Your task to perform on an android device: toggle show notifications on the lock screen Image 0: 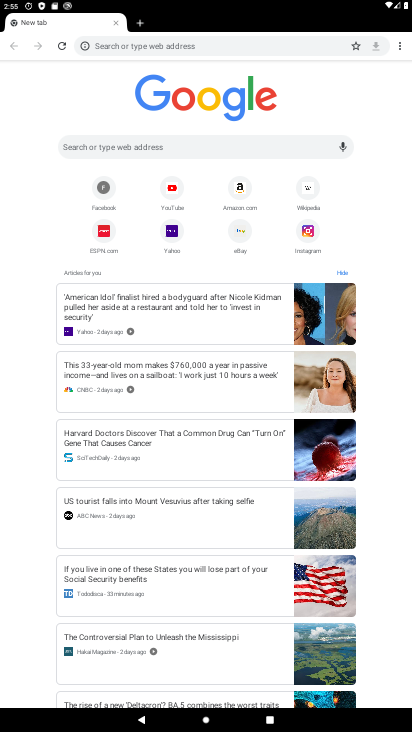
Step 0: press home button
Your task to perform on an android device: toggle show notifications on the lock screen Image 1: 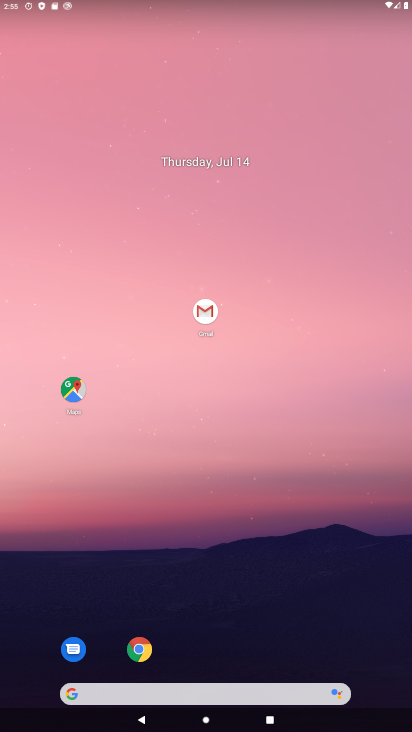
Step 1: drag from (201, 626) to (266, 176)
Your task to perform on an android device: toggle show notifications on the lock screen Image 2: 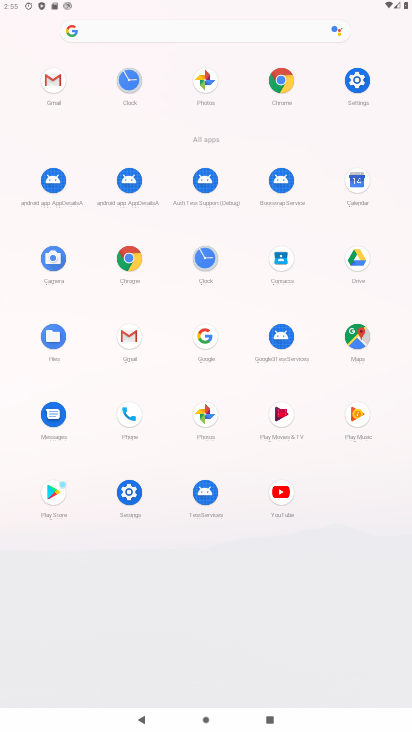
Step 2: drag from (351, 85) to (320, 178)
Your task to perform on an android device: toggle show notifications on the lock screen Image 3: 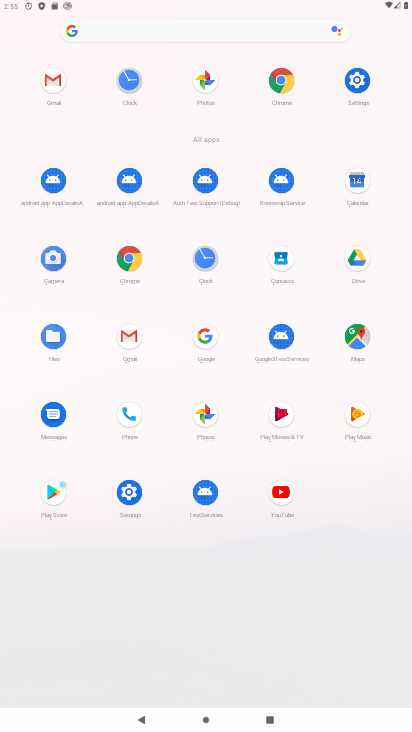
Step 3: drag from (357, 72) to (123, 247)
Your task to perform on an android device: toggle show notifications on the lock screen Image 4: 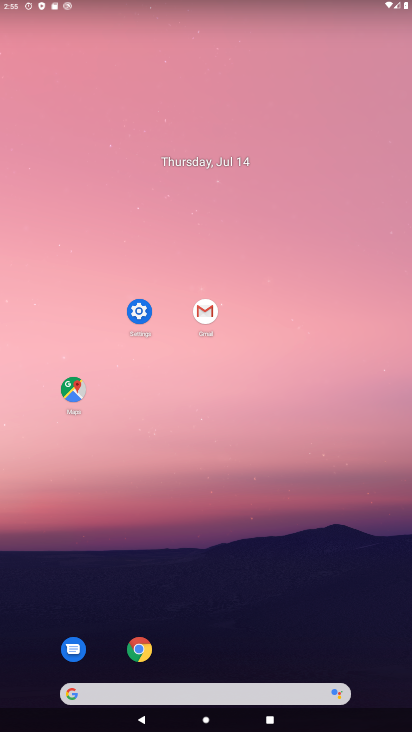
Step 4: click (129, 309)
Your task to perform on an android device: toggle show notifications on the lock screen Image 5: 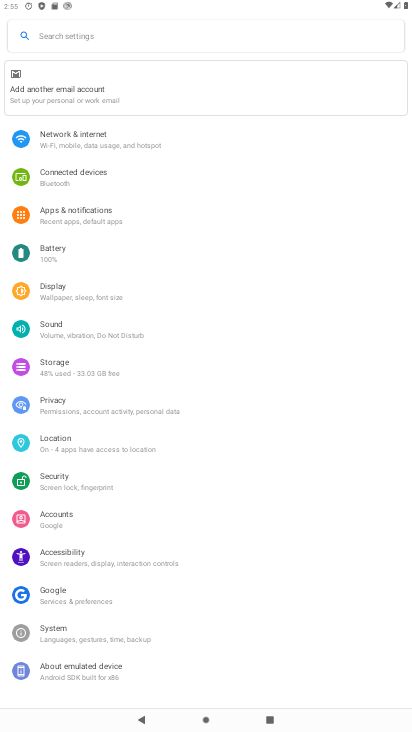
Step 5: click (134, 218)
Your task to perform on an android device: toggle show notifications on the lock screen Image 6: 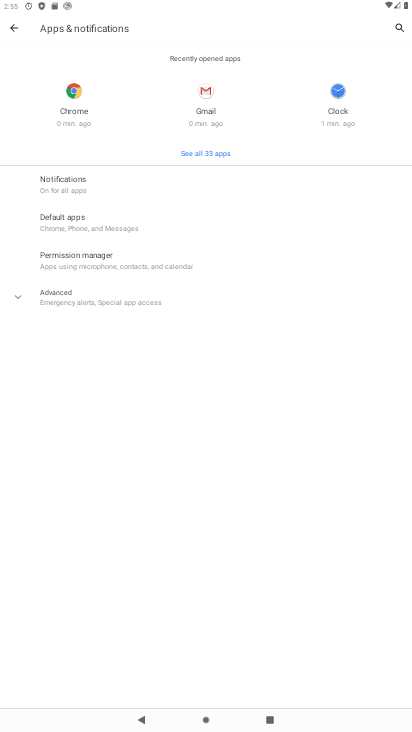
Step 6: click (82, 182)
Your task to perform on an android device: toggle show notifications on the lock screen Image 7: 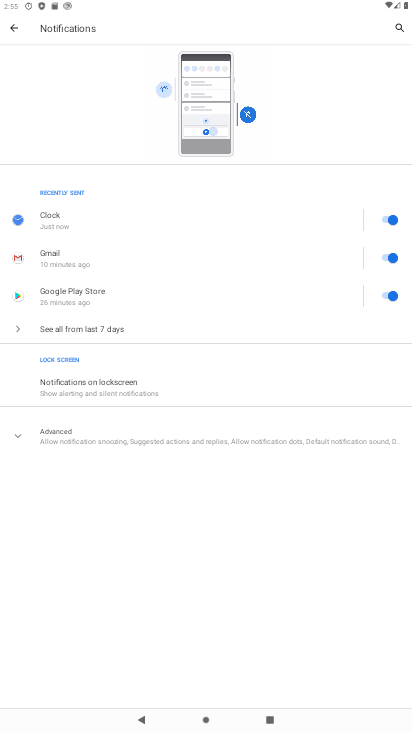
Step 7: click (160, 394)
Your task to perform on an android device: toggle show notifications on the lock screen Image 8: 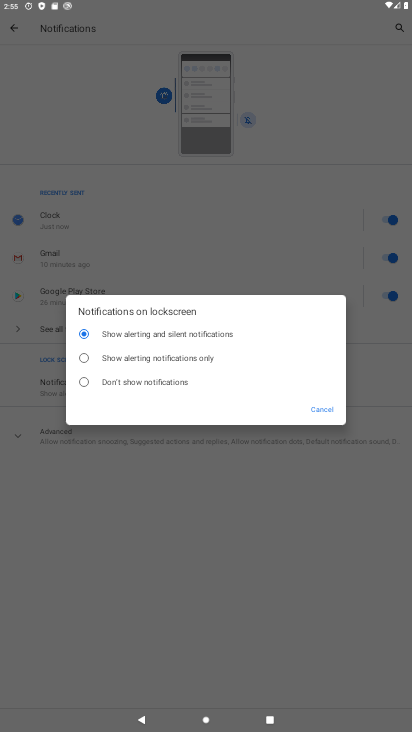
Step 8: click (151, 355)
Your task to perform on an android device: toggle show notifications on the lock screen Image 9: 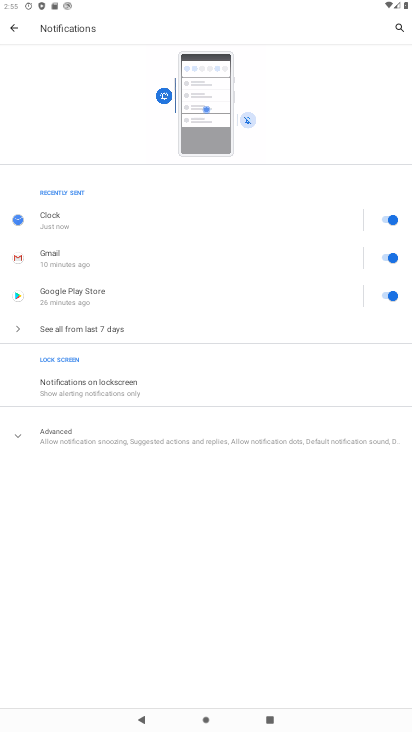
Step 9: task complete